Your task to perform on an android device: change your default location settings in chrome Image 0: 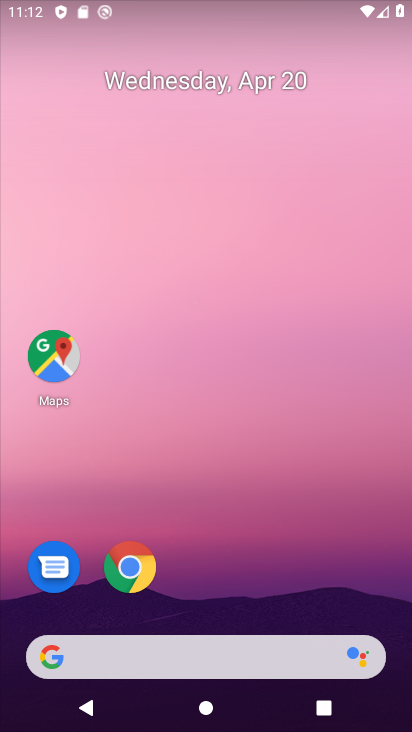
Step 0: drag from (374, 569) to (300, 229)
Your task to perform on an android device: change your default location settings in chrome Image 1: 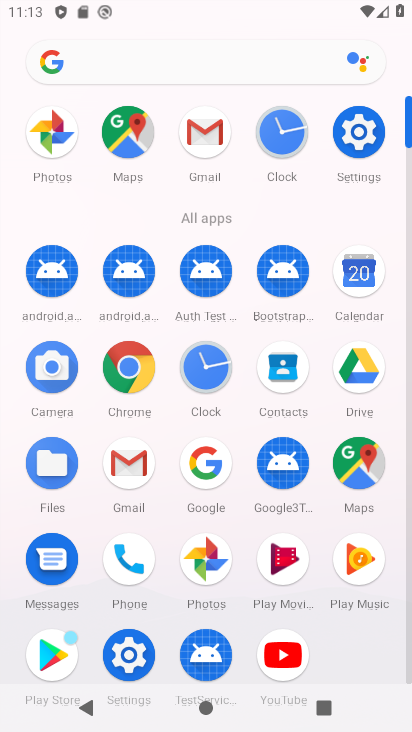
Step 1: click (130, 376)
Your task to perform on an android device: change your default location settings in chrome Image 2: 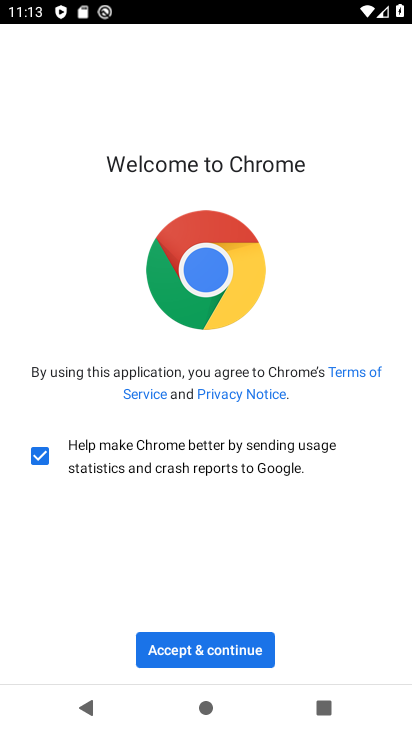
Step 2: click (177, 653)
Your task to perform on an android device: change your default location settings in chrome Image 3: 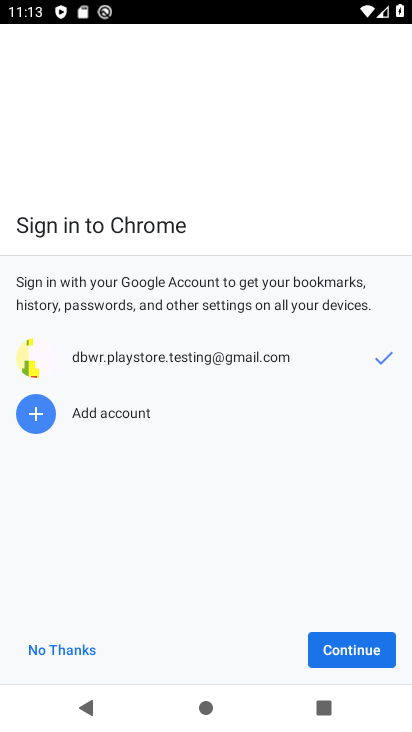
Step 3: click (346, 651)
Your task to perform on an android device: change your default location settings in chrome Image 4: 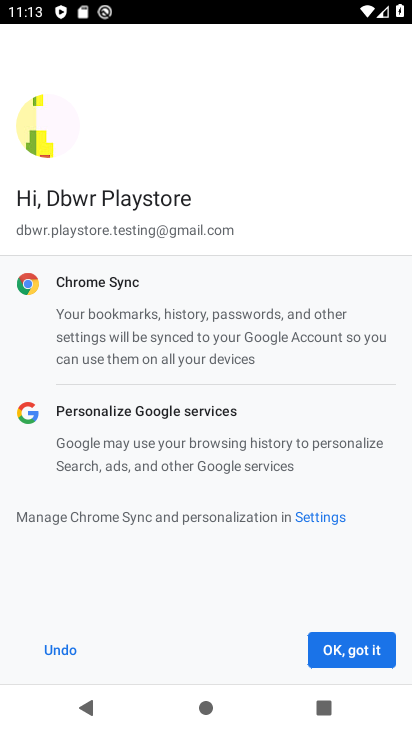
Step 4: click (346, 651)
Your task to perform on an android device: change your default location settings in chrome Image 5: 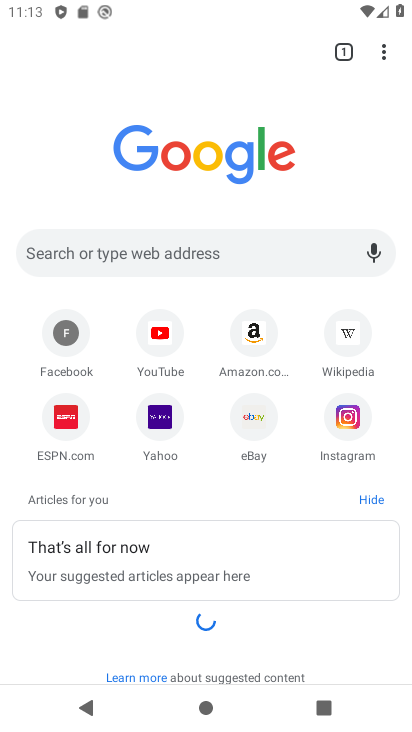
Step 5: click (384, 53)
Your task to perform on an android device: change your default location settings in chrome Image 6: 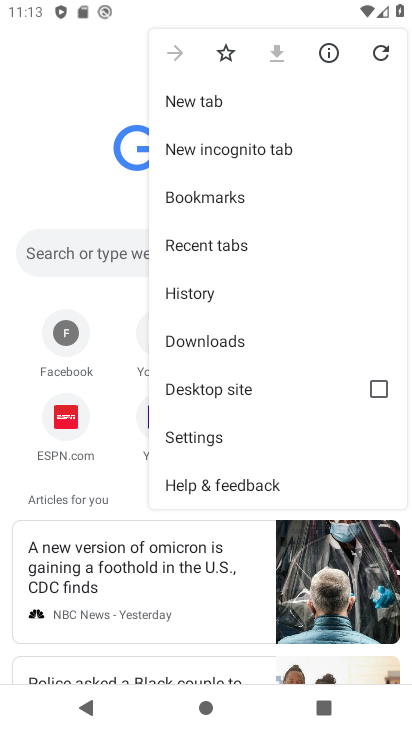
Step 6: click (208, 443)
Your task to perform on an android device: change your default location settings in chrome Image 7: 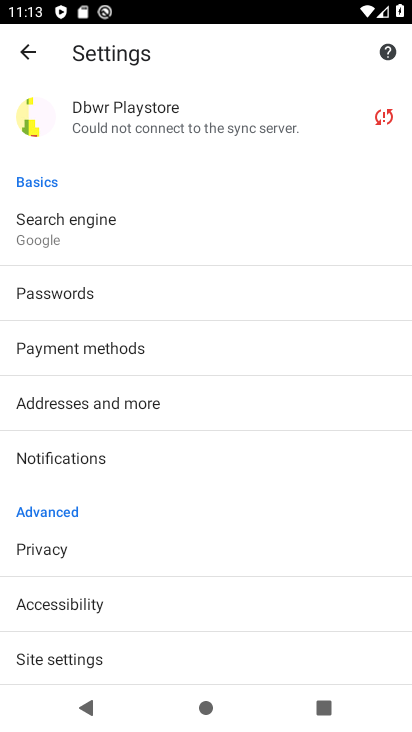
Step 7: drag from (194, 638) to (239, 318)
Your task to perform on an android device: change your default location settings in chrome Image 8: 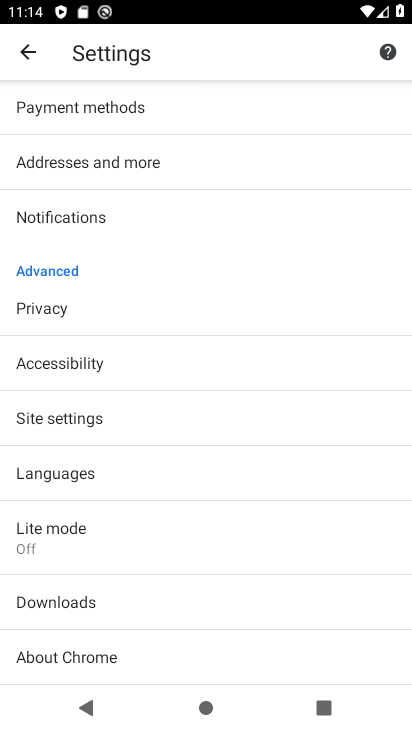
Step 8: click (181, 419)
Your task to perform on an android device: change your default location settings in chrome Image 9: 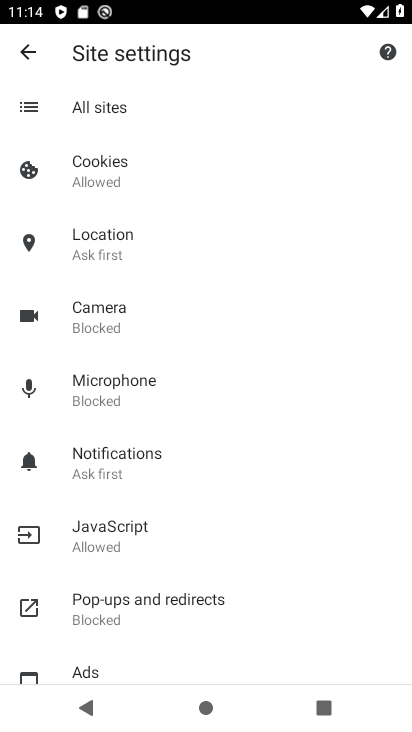
Step 9: click (221, 261)
Your task to perform on an android device: change your default location settings in chrome Image 10: 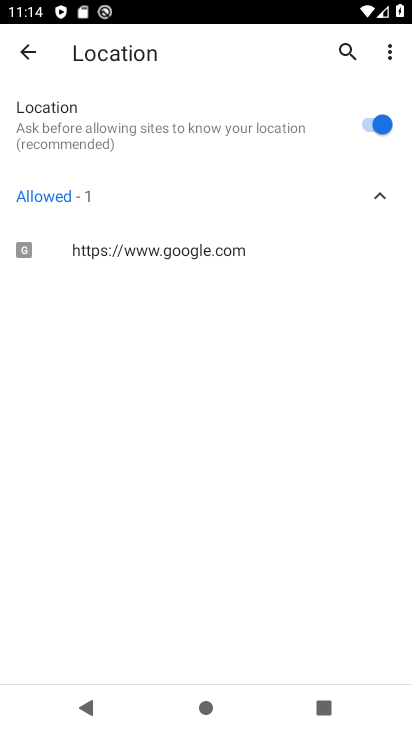
Step 10: task complete